Your task to perform on an android device: Is it going to rain today? Image 0: 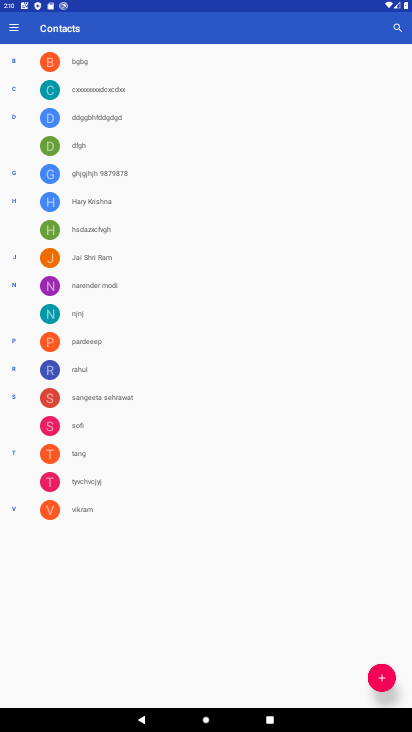
Step 0: drag from (274, 514) to (329, 241)
Your task to perform on an android device: Is it going to rain today? Image 1: 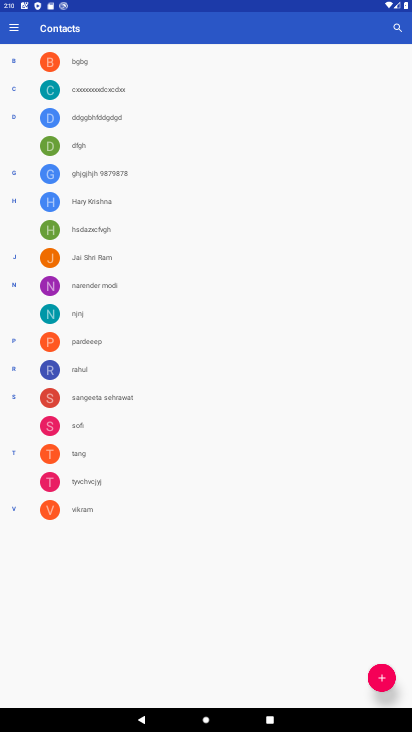
Step 1: press home button
Your task to perform on an android device: Is it going to rain today? Image 2: 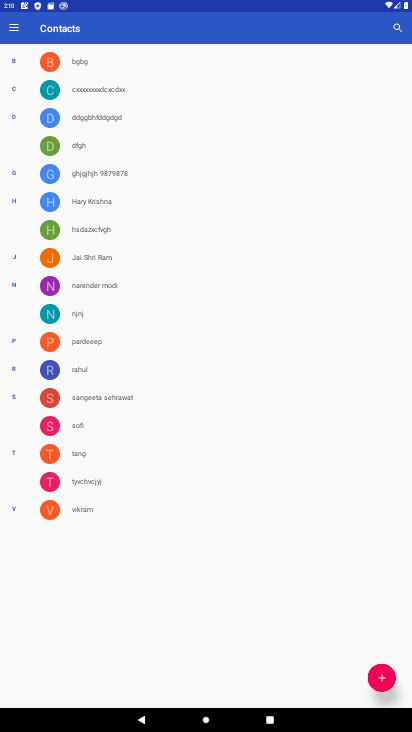
Step 2: press home button
Your task to perform on an android device: Is it going to rain today? Image 3: 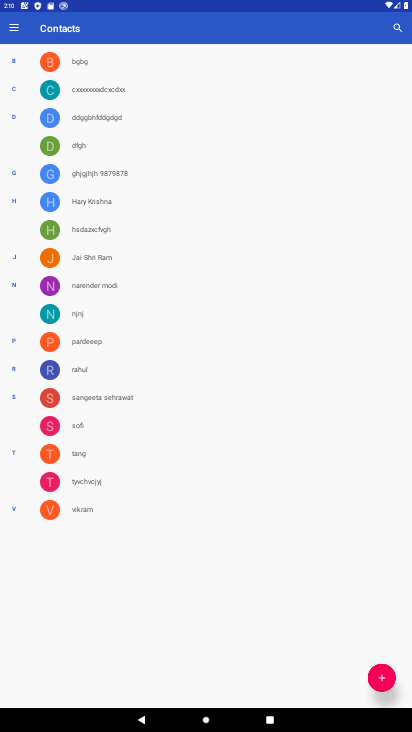
Step 3: click (230, 173)
Your task to perform on an android device: Is it going to rain today? Image 4: 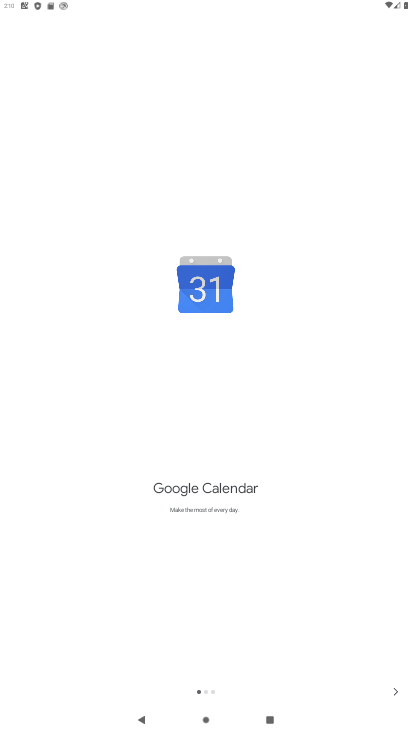
Step 4: press home button
Your task to perform on an android device: Is it going to rain today? Image 5: 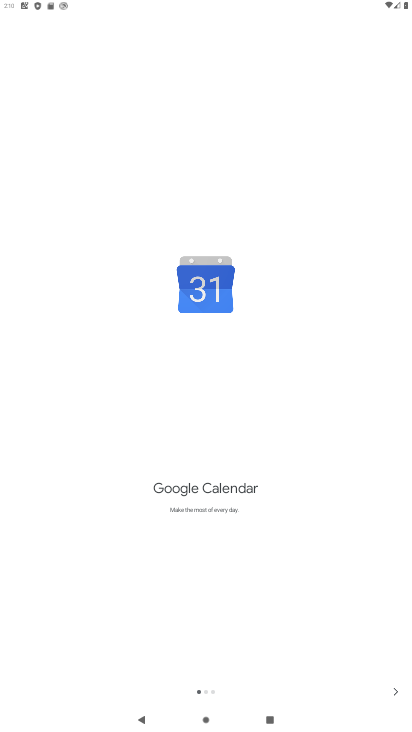
Step 5: press home button
Your task to perform on an android device: Is it going to rain today? Image 6: 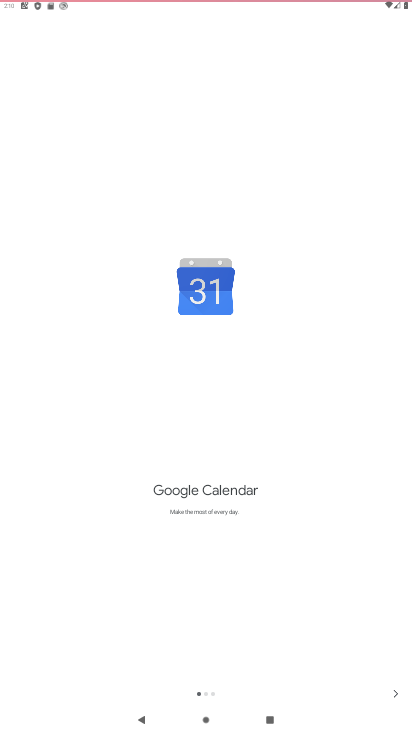
Step 6: drag from (236, 272) to (260, 110)
Your task to perform on an android device: Is it going to rain today? Image 7: 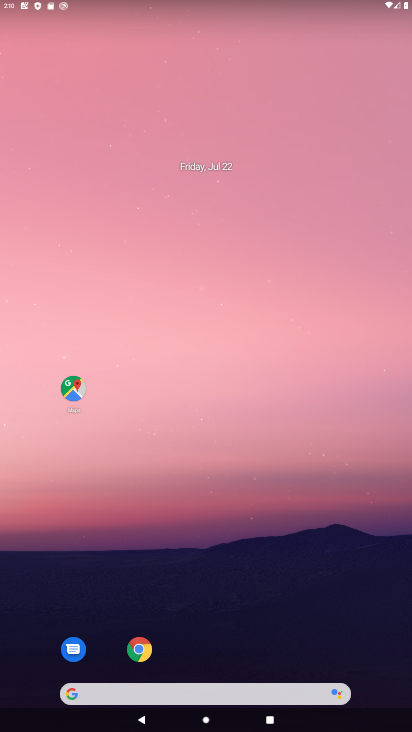
Step 7: drag from (184, 642) to (233, 141)
Your task to perform on an android device: Is it going to rain today? Image 8: 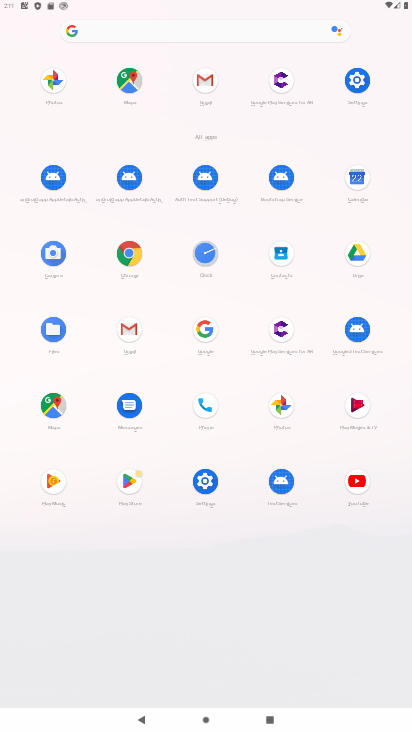
Step 8: click (170, 27)
Your task to perform on an android device: Is it going to rain today? Image 9: 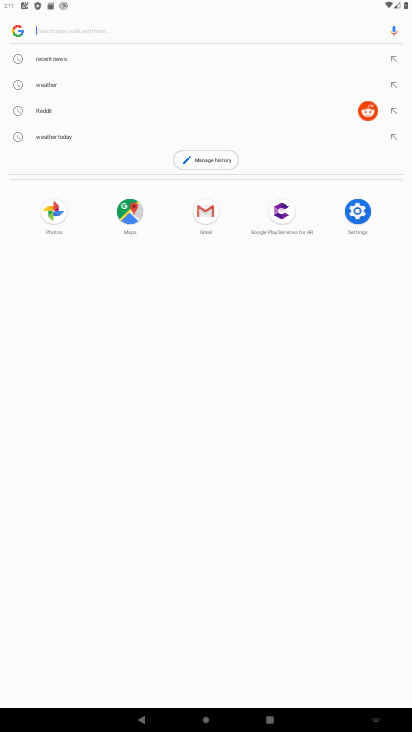
Step 9: type "Is it going to rain today?"
Your task to perform on an android device: Is it going to rain today? Image 10: 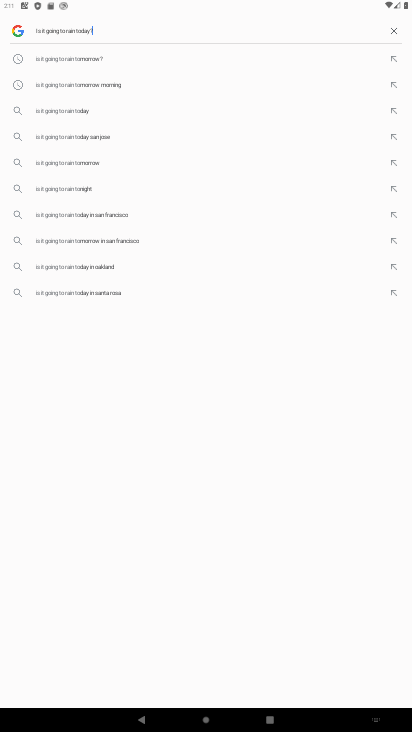
Step 10: type ""
Your task to perform on an android device: Is it going to rain today? Image 11: 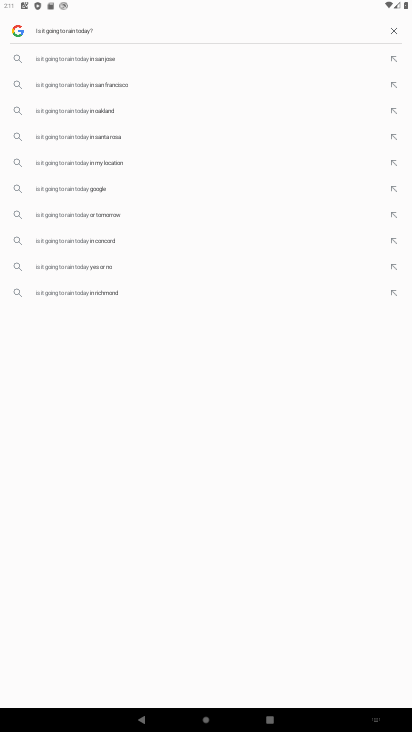
Step 11: click (106, 61)
Your task to perform on an android device: Is it going to rain today? Image 12: 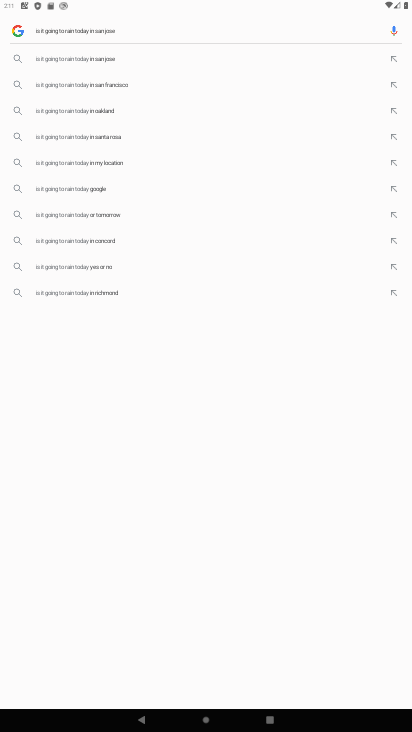
Step 12: task complete